Your task to perform on an android device: allow notifications from all sites in the chrome app Image 0: 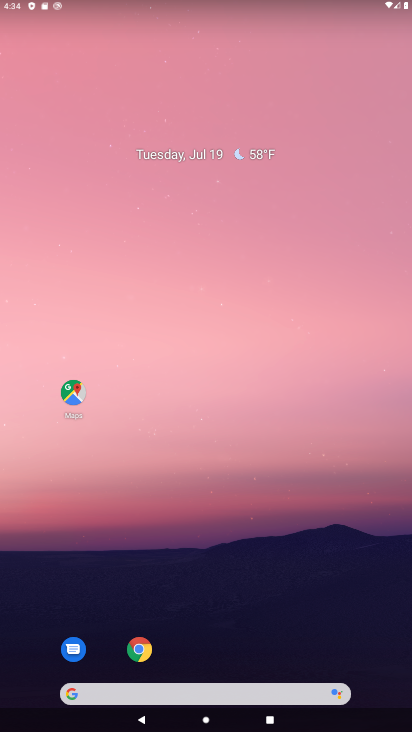
Step 0: drag from (345, 670) to (309, 144)
Your task to perform on an android device: allow notifications from all sites in the chrome app Image 1: 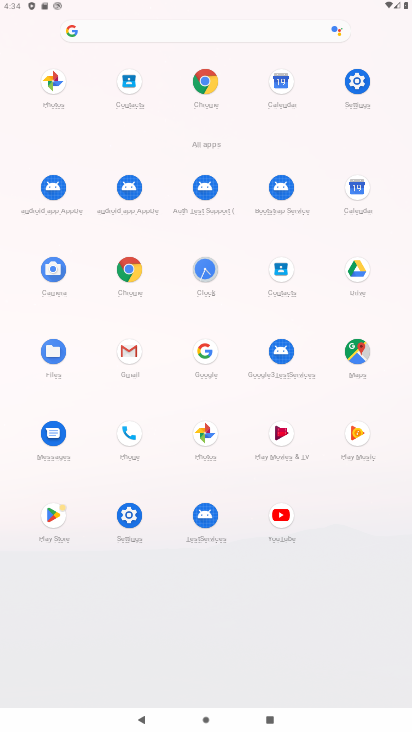
Step 1: click (127, 271)
Your task to perform on an android device: allow notifications from all sites in the chrome app Image 2: 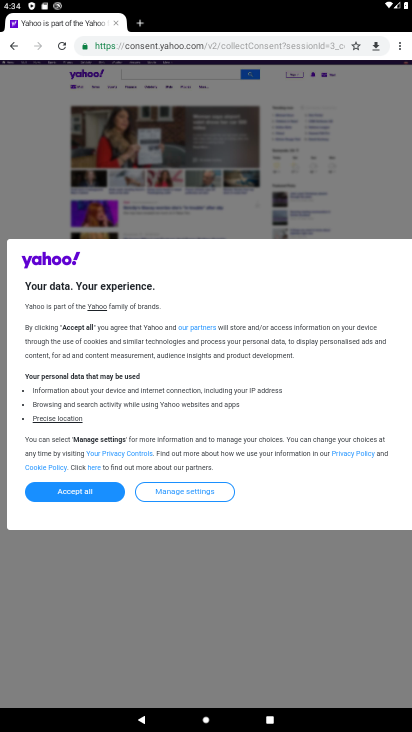
Step 2: drag from (403, 44) to (309, 309)
Your task to perform on an android device: allow notifications from all sites in the chrome app Image 3: 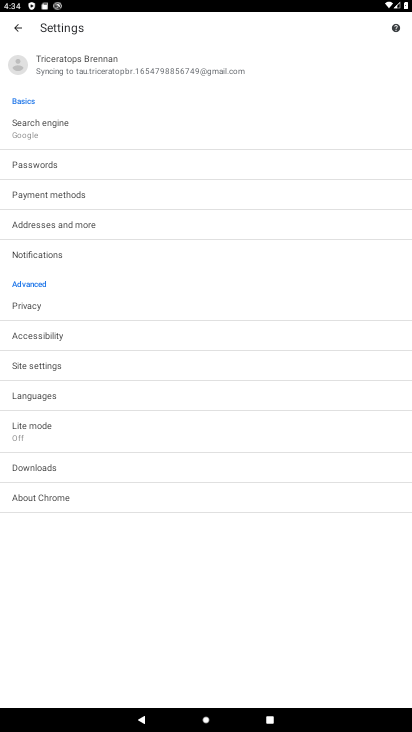
Step 3: click (89, 369)
Your task to perform on an android device: allow notifications from all sites in the chrome app Image 4: 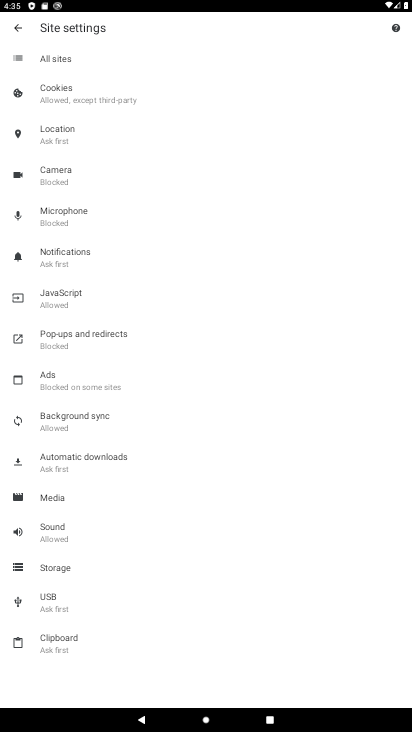
Step 4: click (59, 249)
Your task to perform on an android device: allow notifications from all sites in the chrome app Image 5: 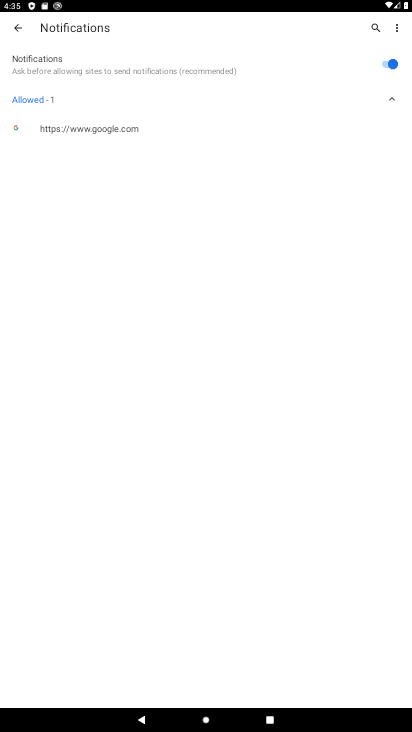
Step 5: task complete